Your task to perform on an android device: Play the last video I watched on Youtube Image 0: 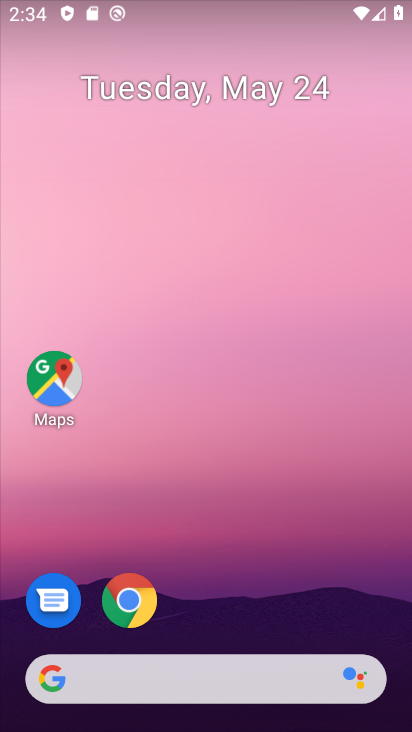
Step 0: click (409, 160)
Your task to perform on an android device: Play the last video I watched on Youtube Image 1: 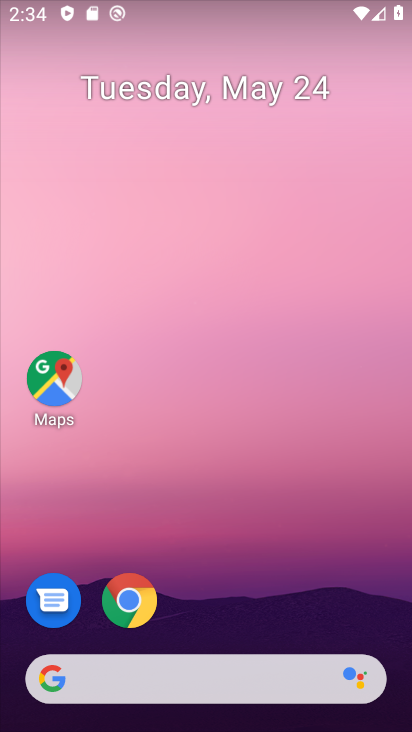
Step 1: drag from (203, 640) to (411, 44)
Your task to perform on an android device: Play the last video I watched on Youtube Image 2: 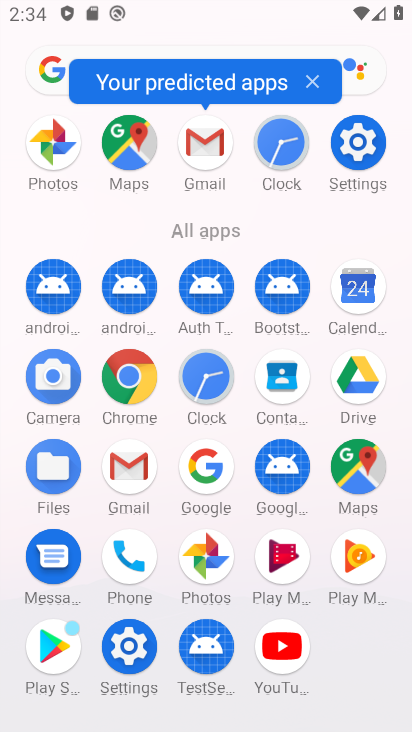
Step 2: click (282, 658)
Your task to perform on an android device: Play the last video I watched on Youtube Image 3: 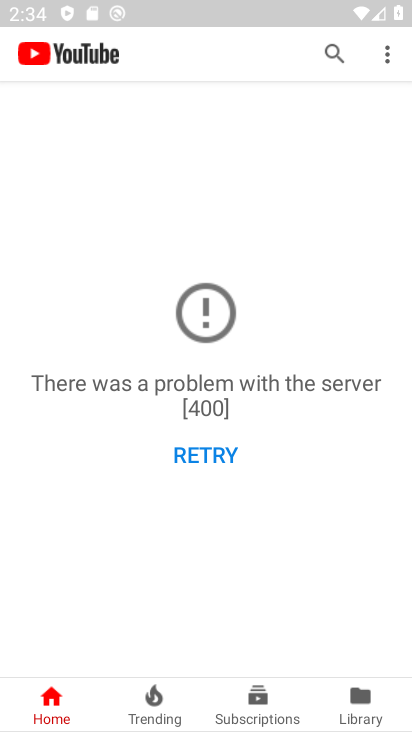
Step 3: click (361, 707)
Your task to perform on an android device: Play the last video I watched on Youtube Image 4: 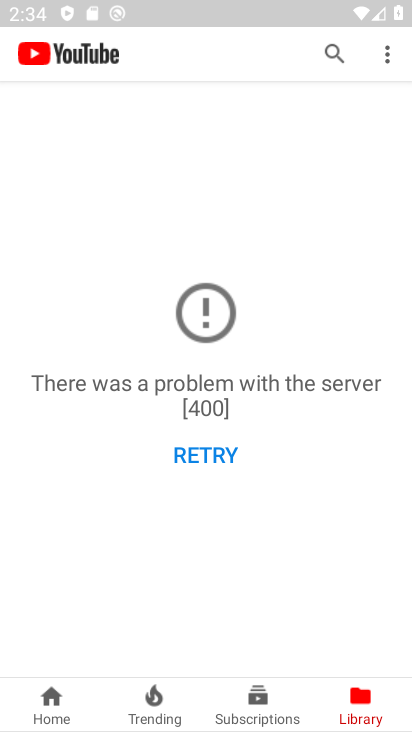
Step 4: click (215, 442)
Your task to perform on an android device: Play the last video I watched on Youtube Image 5: 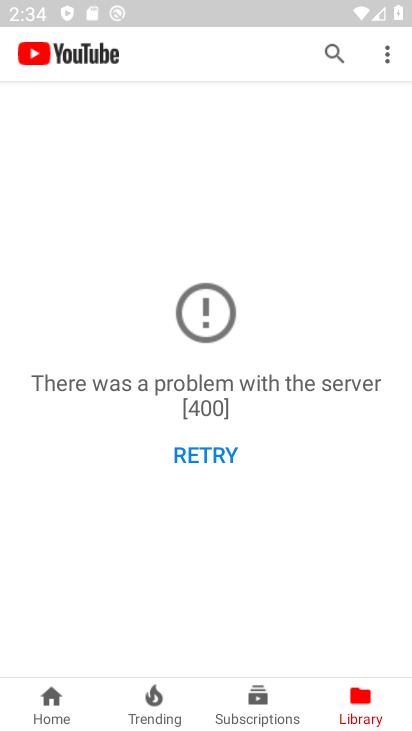
Step 5: task complete